Your task to perform on an android device: choose inbox layout in the gmail app Image 0: 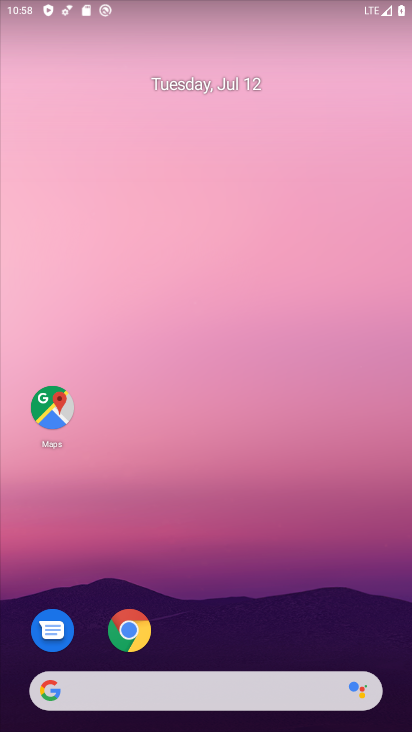
Step 0: drag from (390, 685) to (136, 39)
Your task to perform on an android device: choose inbox layout in the gmail app Image 1: 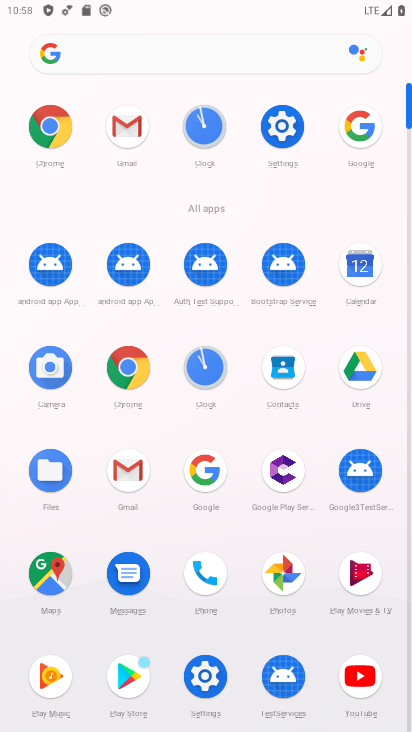
Step 1: click (133, 497)
Your task to perform on an android device: choose inbox layout in the gmail app Image 2: 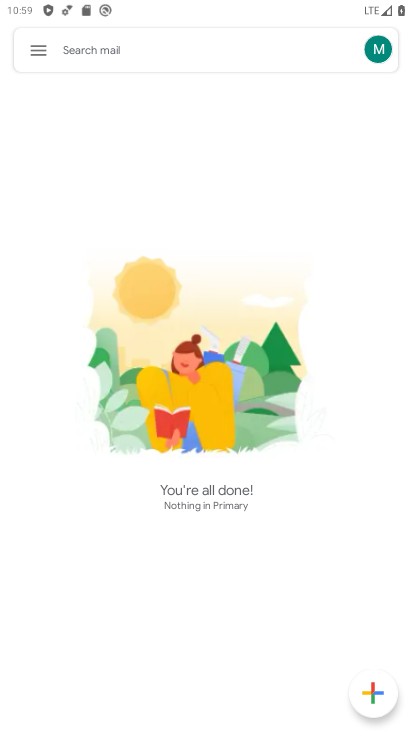
Step 2: task complete